Your task to perform on an android device: change the clock display to analog Image 0: 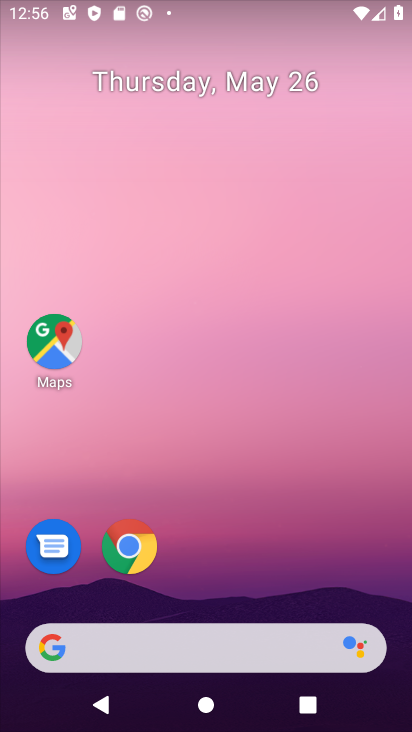
Step 0: drag from (250, 583) to (357, 50)
Your task to perform on an android device: change the clock display to analog Image 1: 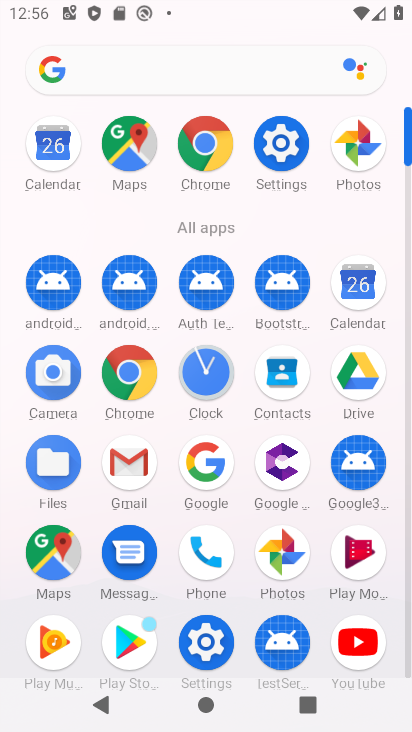
Step 1: click (187, 394)
Your task to perform on an android device: change the clock display to analog Image 2: 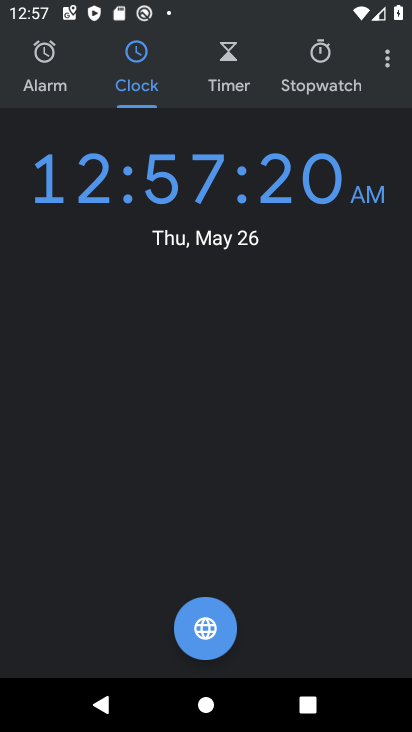
Step 2: click (375, 67)
Your task to perform on an android device: change the clock display to analog Image 3: 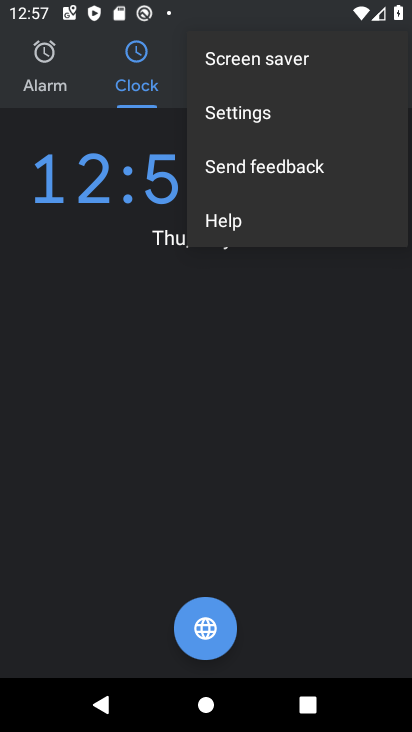
Step 3: click (282, 104)
Your task to perform on an android device: change the clock display to analog Image 4: 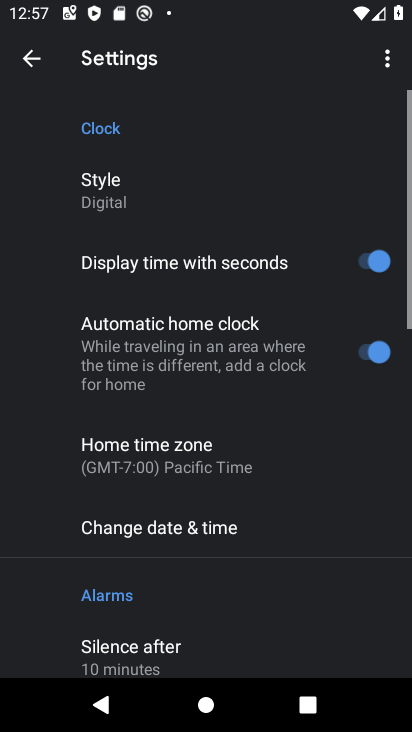
Step 4: click (153, 196)
Your task to perform on an android device: change the clock display to analog Image 5: 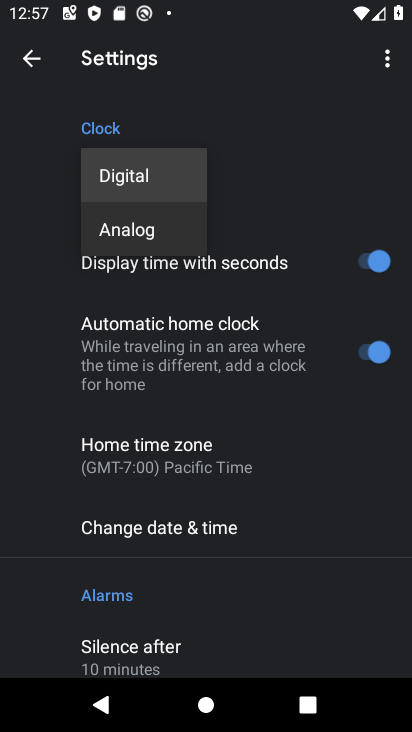
Step 5: click (152, 239)
Your task to perform on an android device: change the clock display to analog Image 6: 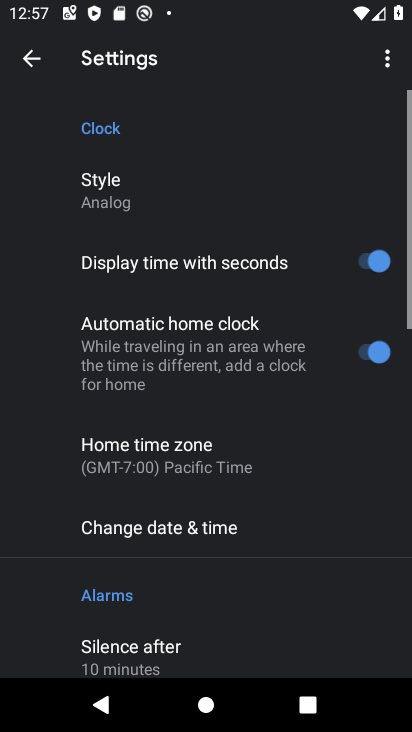
Step 6: task complete